Your task to perform on an android device: Open Google Chrome and click the shortcut for Amazon.com Image 0: 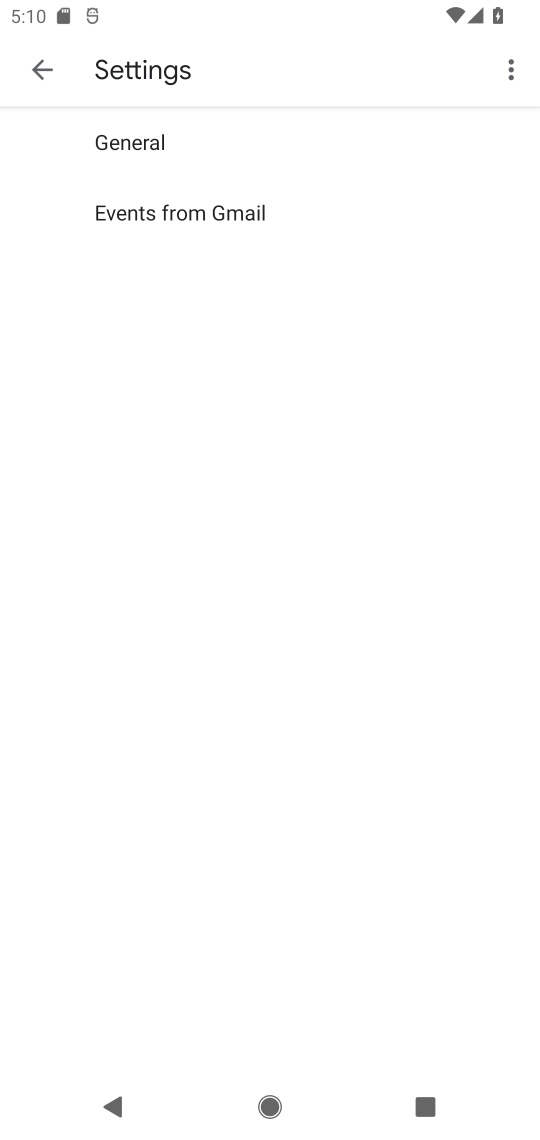
Step 0: press home button
Your task to perform on an android device: Open Google Chrome and click the shortcut for Amazon.com Image 1: 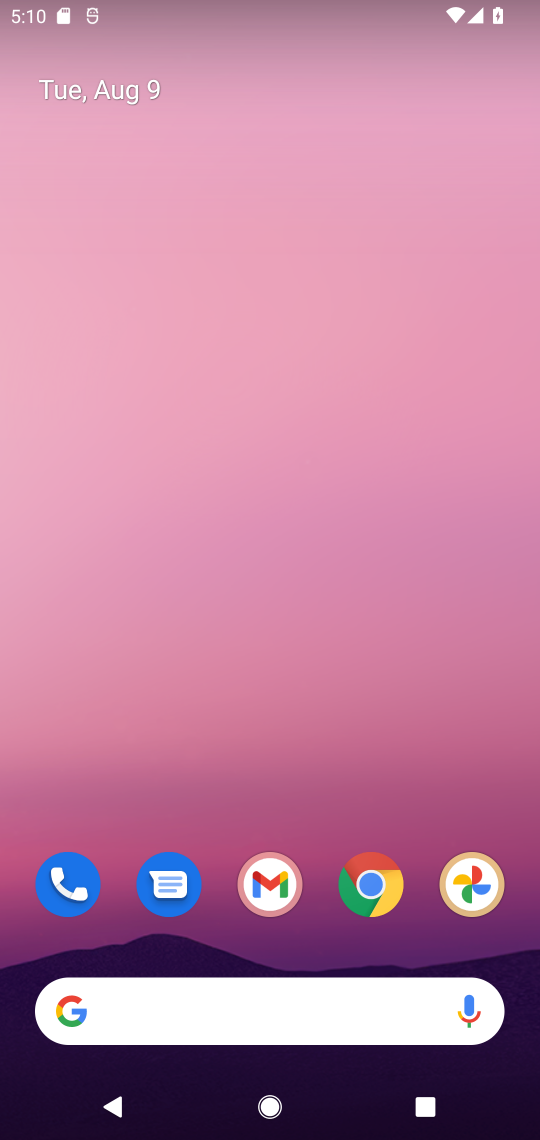
Step 1: click (372, 885)
Your task to perform on an android device: Open Google Chrome and click the shortcut for Amazon.com Image 2: 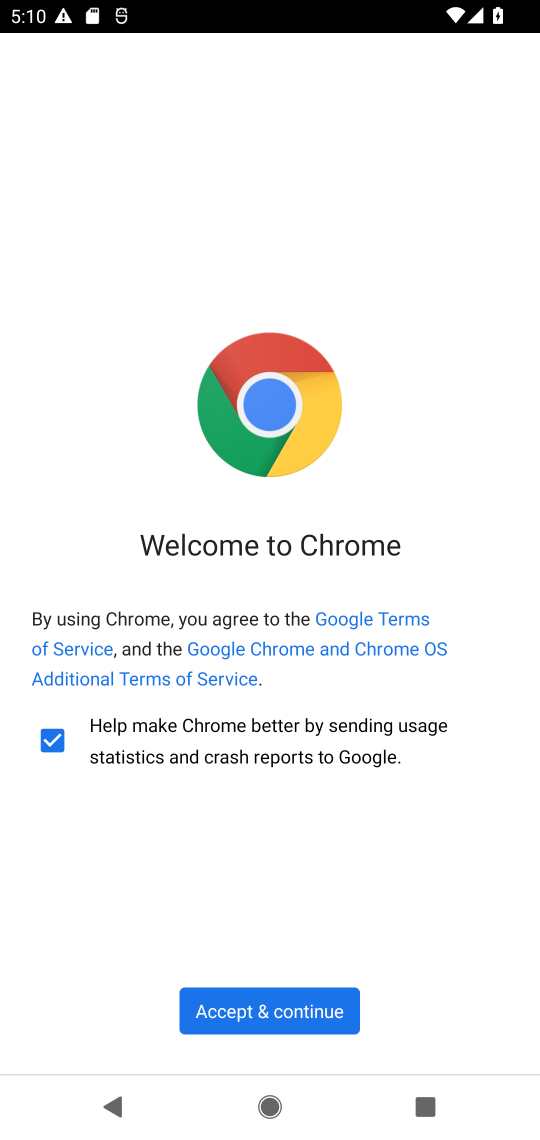
Step 2: click (273, 1005)
Your task to perform on an android device: Open Google Chrome and click the shortcut for Amazon.com Image 3: 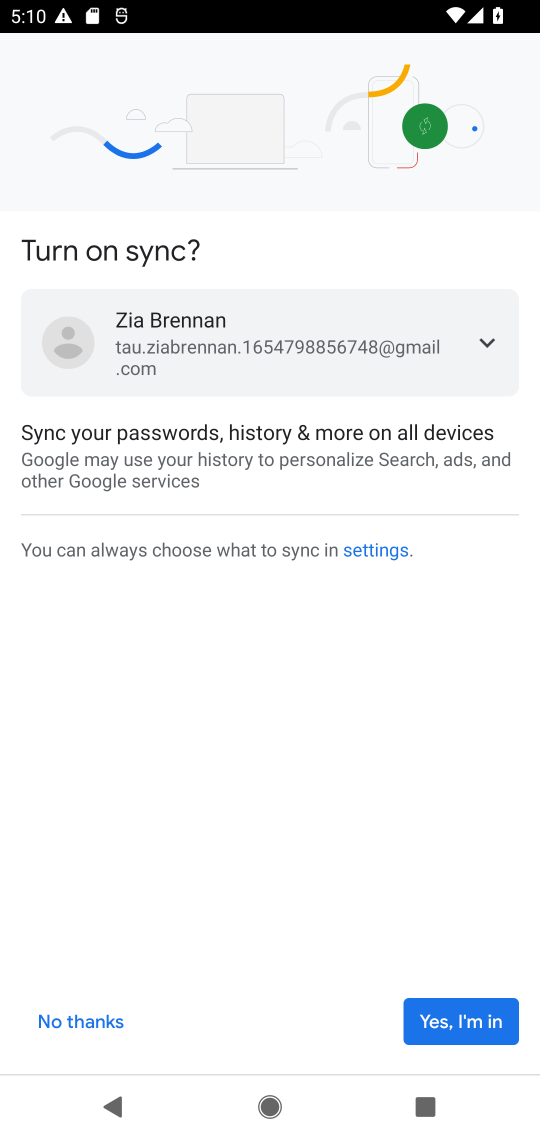
Step 3: click (456, 1028)
Your task to perform on an android device: Open Google Chrome and click the shortcut for Amazon.com Image 4: 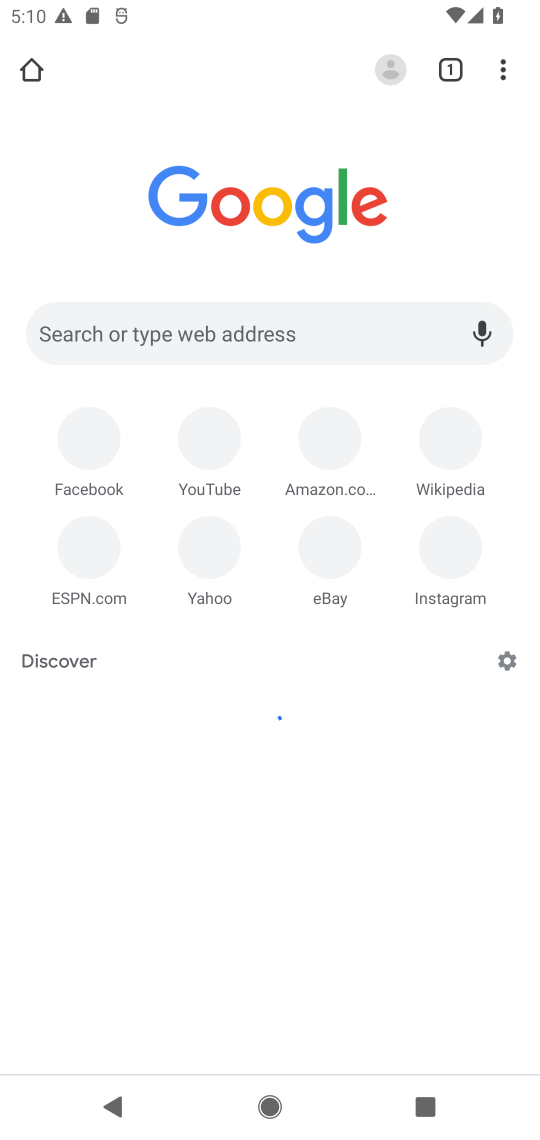
Step 4: click (331, 444)
Your task to perform on an android device: Open Google Chrome and click the shortcut for Amazon.com Image 5: 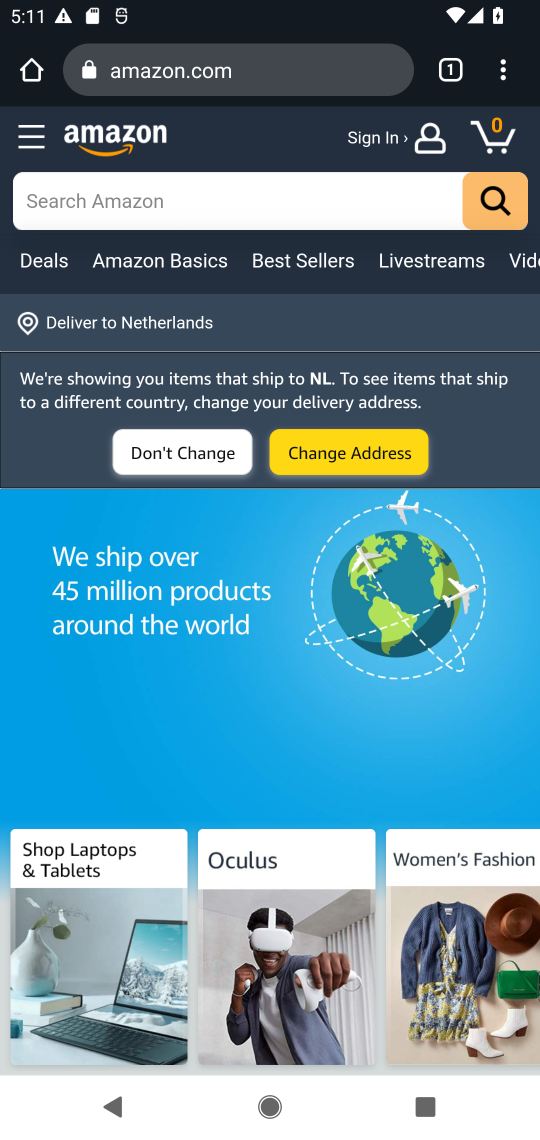
Step 5: drag from (504, 78) to (386, 727)
Your task to perform on an android device: Open Google Chrome and click the shortcut for Amazon.com Image 6: 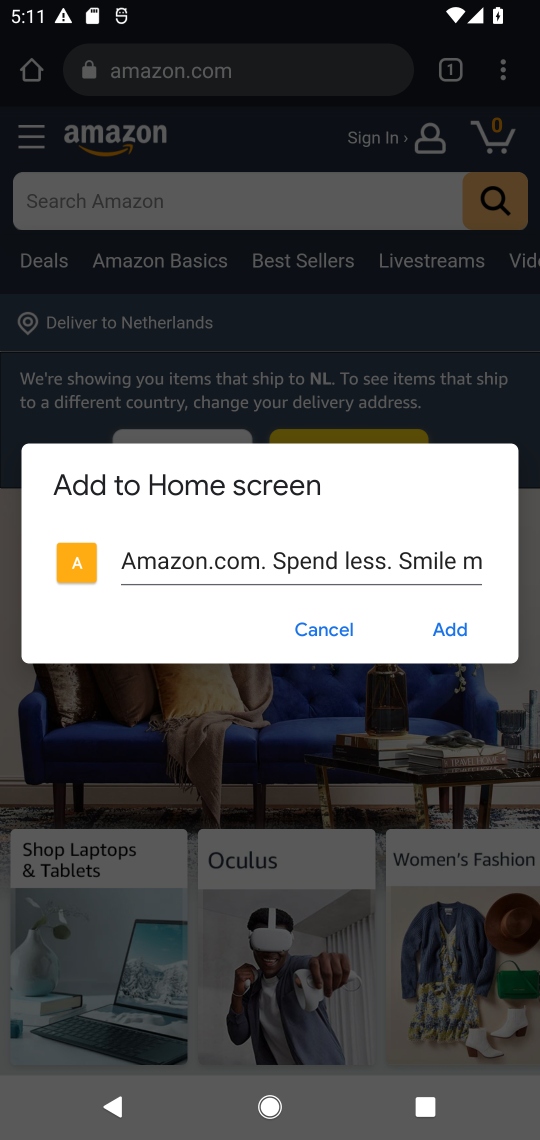
Step 6: click (453, 620)
Your task to perform on an android device: Open Google Chrome and click the shortcut for Amazon.com Image 7: 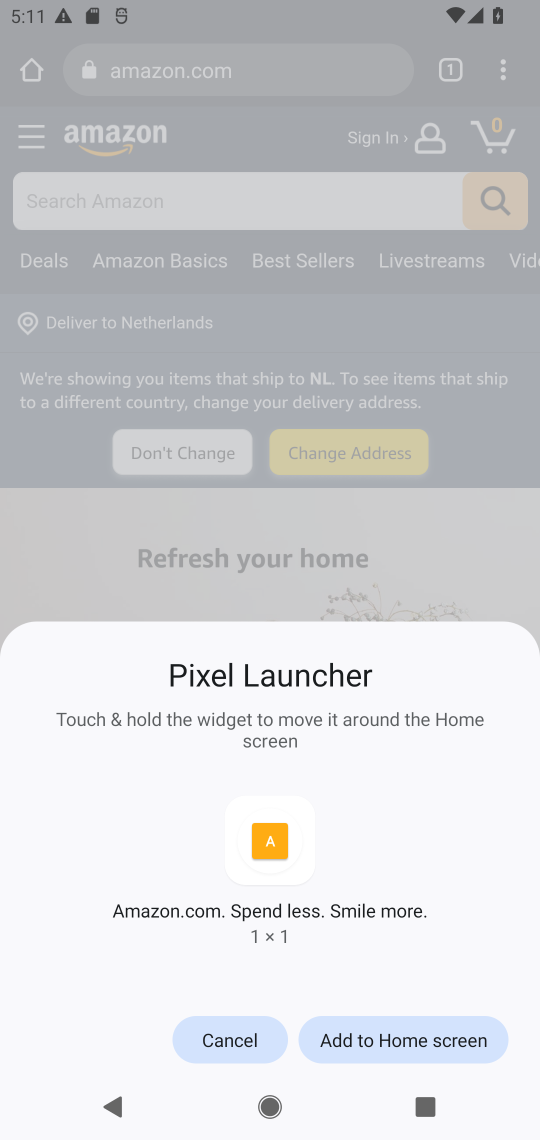
Step 7: click (241, 1037)
Your task to perform on an android device: Open Google Chrome and click the shortcut for Amazon.com Image 8: 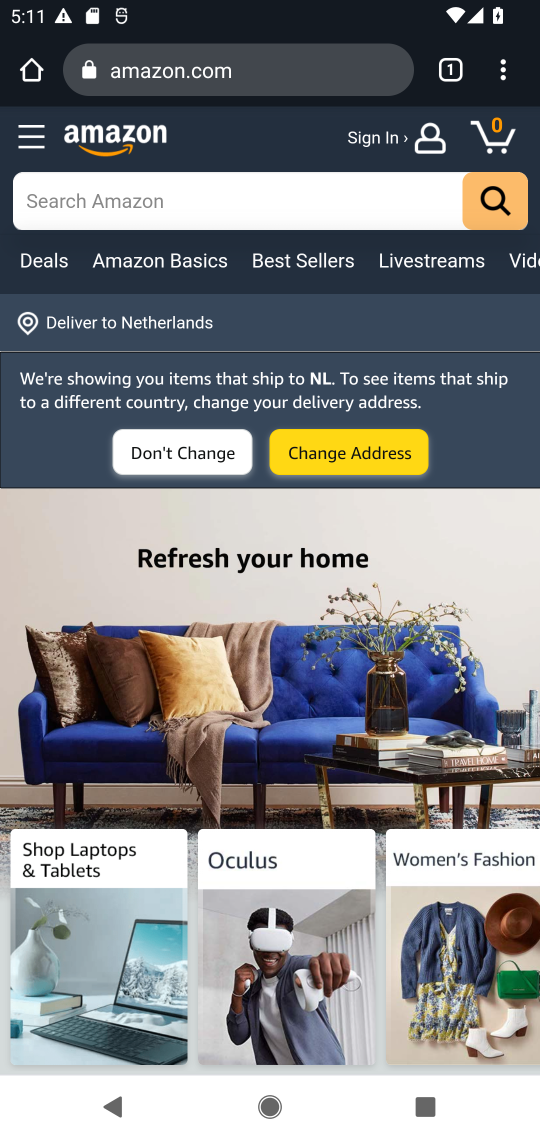
Step 8: task complete